Your task to perform on an android device: Go to calendar. Show me events next week Image 0: 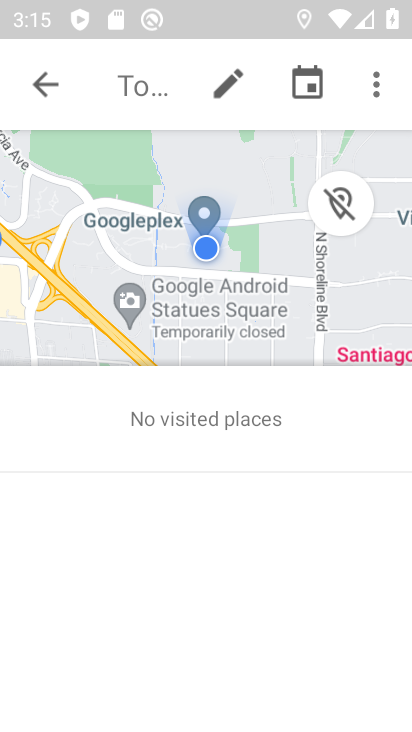
Step 0: click (320, 261)
Your task to perform on an android device: Go to calendar. Show me events next week Image 1: 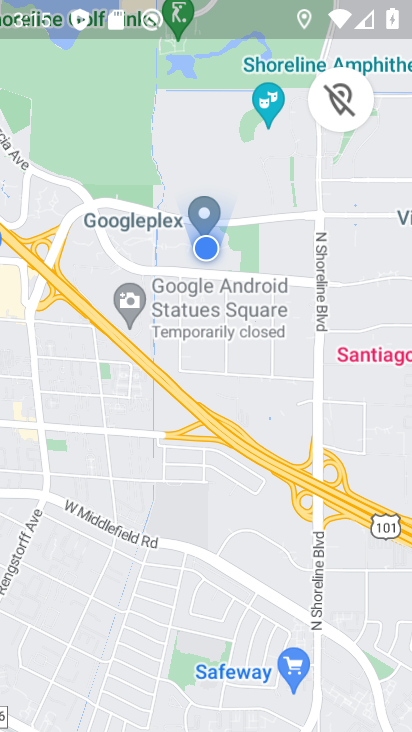
Step 1: press home button
Your task to perform on an android device: Go to calendar. Show me events next week Image 2: 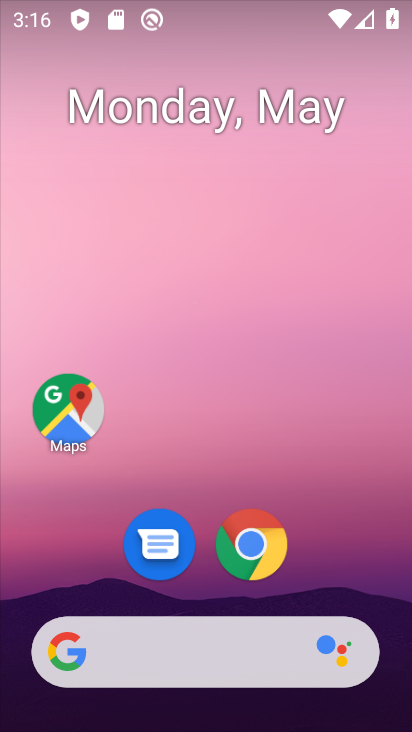
Step 2: drag from (324, 599) to (238, 178)
Your task to perform on an android device: Go to calendar. Show me events next week Image 3: 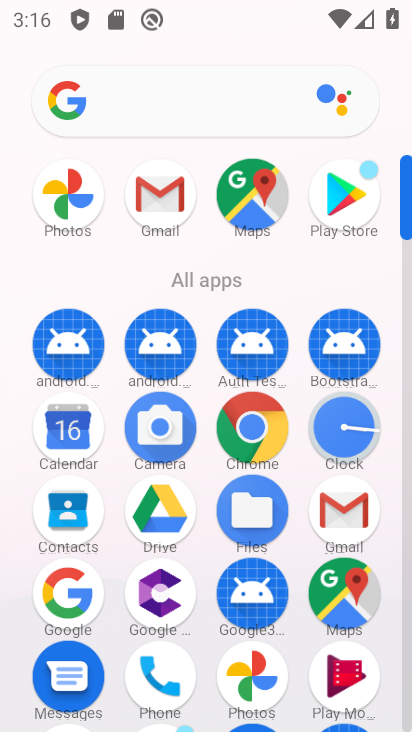
Step 3: click (57, 419)
Your task to perform on an android device: Go to calendar. Show me events next week Image 4: 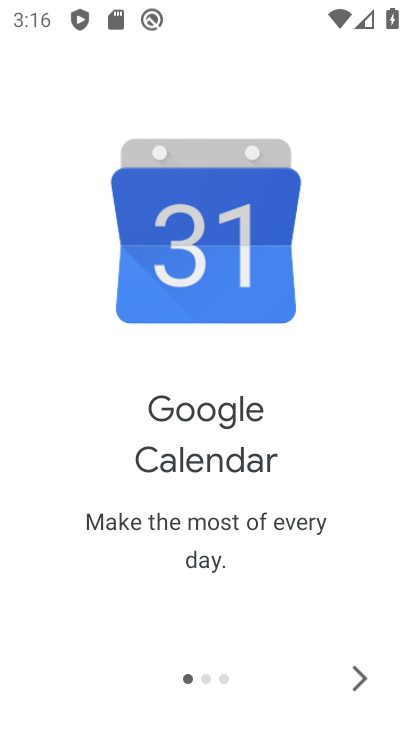
Step 4: click (363, 677)
Your task to perform on an android device: Go to calendar. Show me events next week Image 5: 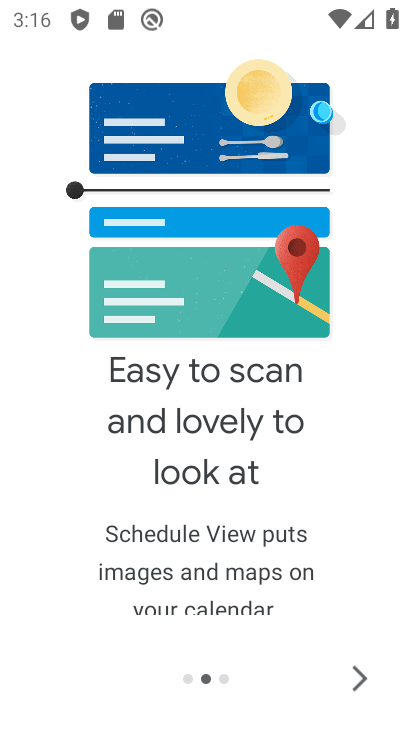
Step 5: click (363, 677)
Your task to perform on an android device: Go to calendar. Show me events next week Image 6: 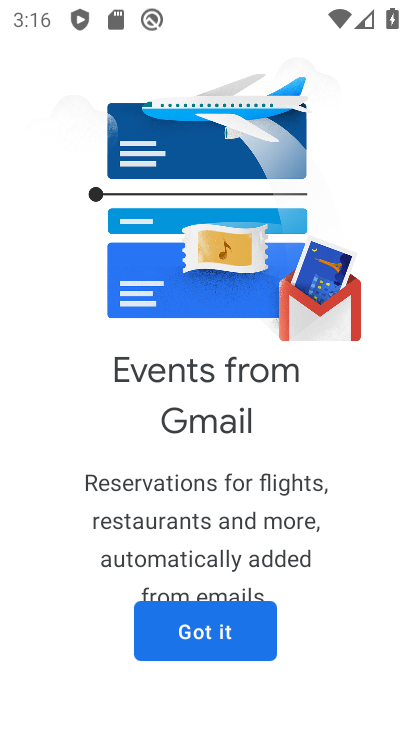
Step 6: click (251, 632)
Your task to perform on an android device: Go to calendar. Show me events next week Image 7: 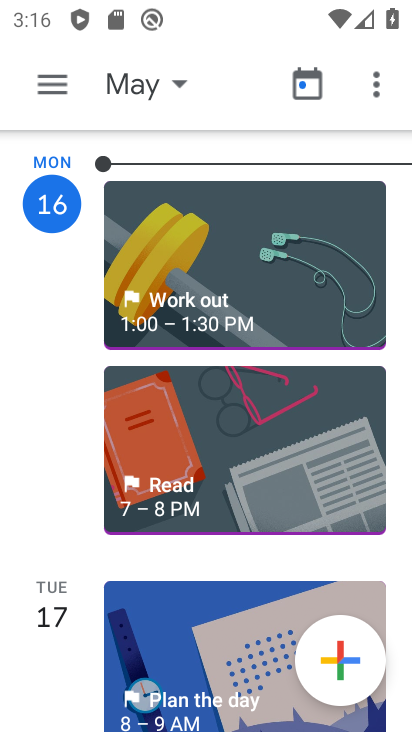
Step 7: click (179, 82)
Your task to perform on an android device: Go to calendar. Show me events next week Image 8: 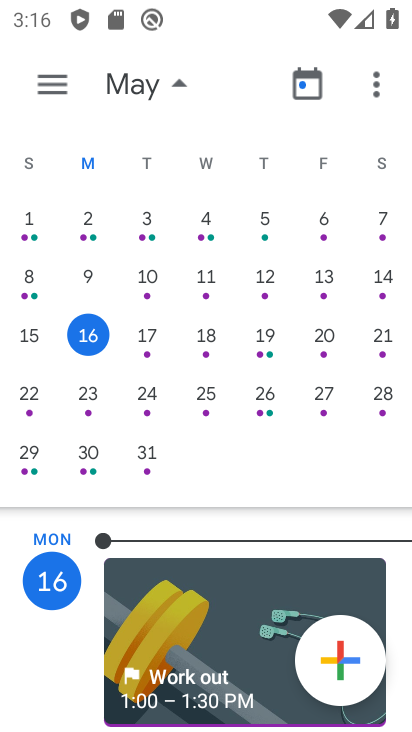
Step 8: click (366, 355)
Your task to perform on an android device: Go to calendar. Show me events next week Image 9: 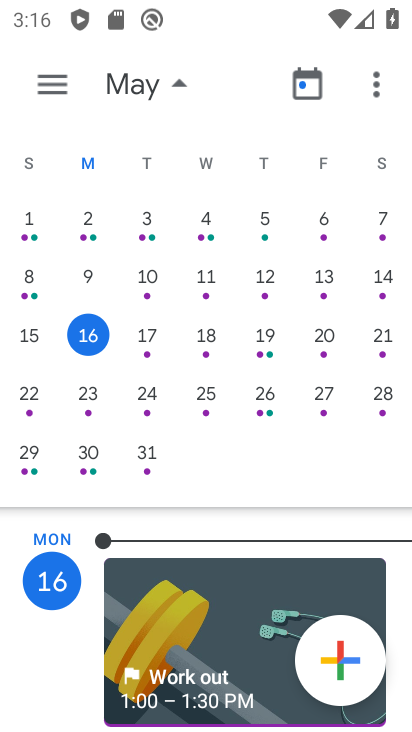
Step 9: click (216, 388)
Your task to perform on an android device: Go to calendar. Show me events next week Image 10: 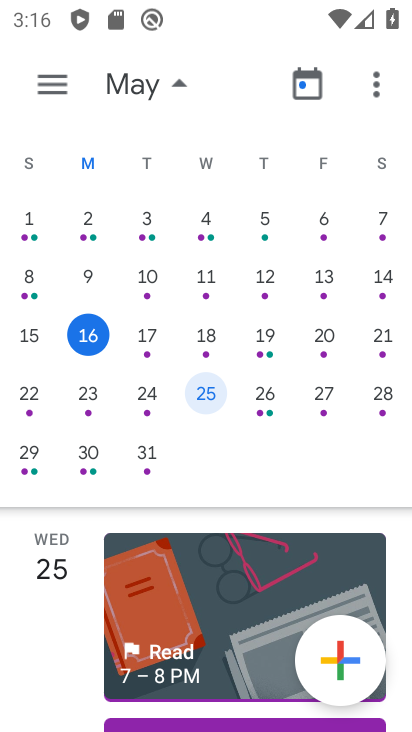
Step 10: click (44, 79)
Your task to perform on an android device: Go to calendar. Show me events next week Image 11: 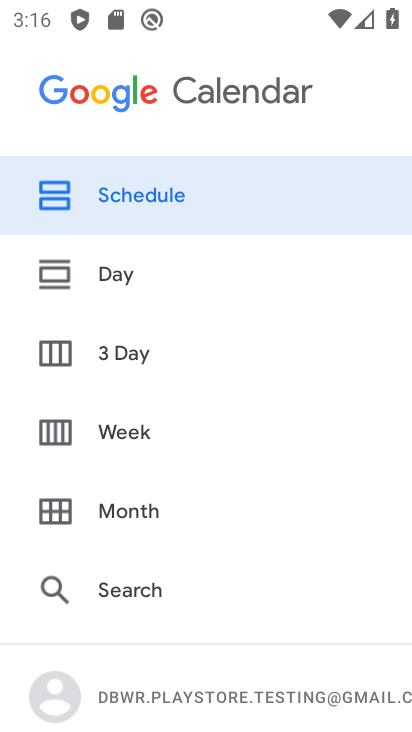
Step 11: click (135, 436)
Your task to perform on an android device: Go to calendar. Show me events next week Image 12: 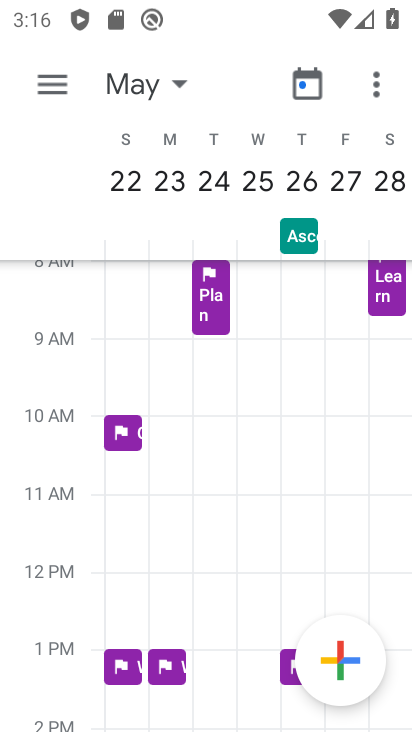
Step 12: task complete